Your task to perform on an android device: What is the news today? Image 0: 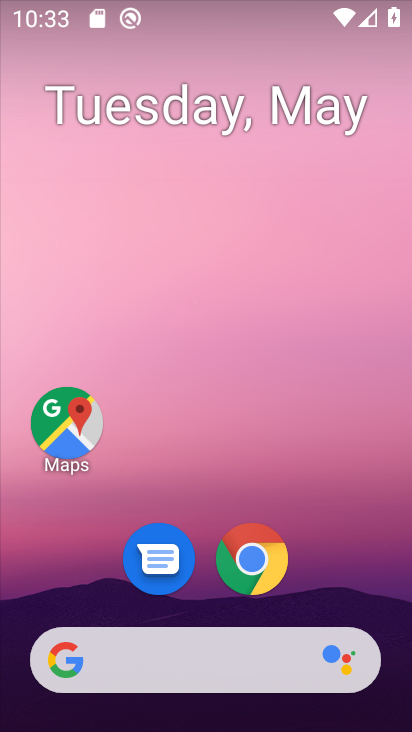
Step 0: drag from (329, 529) to (329, 192)
Your task to perform on an android device: What is the news today? Image 1: 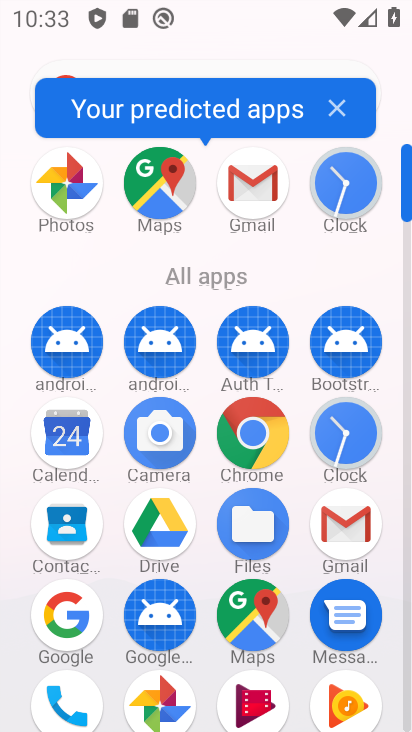
Step 1: click (268, 446)
Your task to perform on an android device: What is the news today? Image 2: 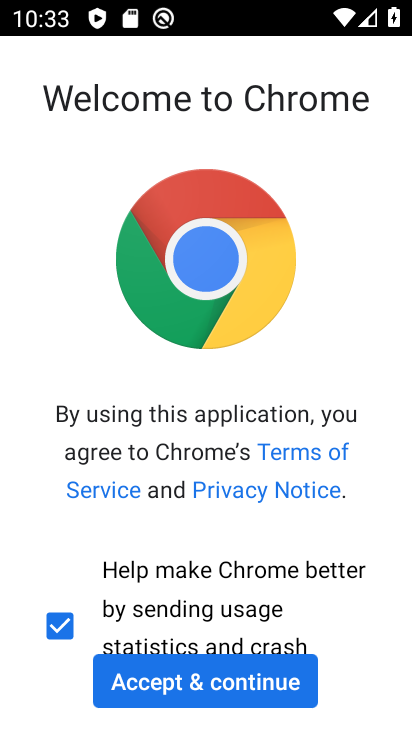
Step 2: click (267, 660)
Your task to perform on an android device: What is the news today? Image 3: 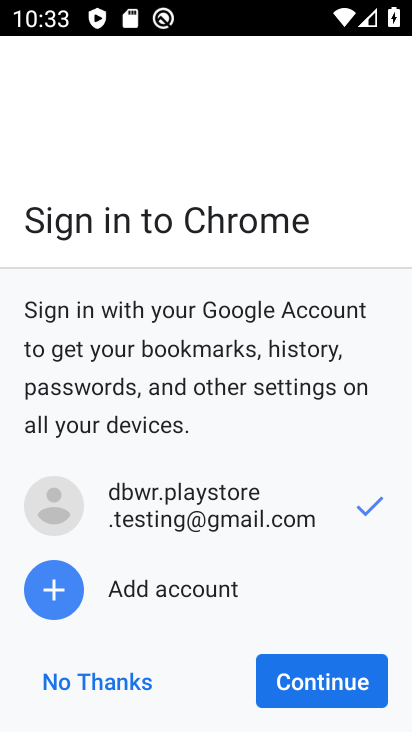
Step 3: click (287, 682)
Your task to perform on an android device: What is the news today? Image 4: 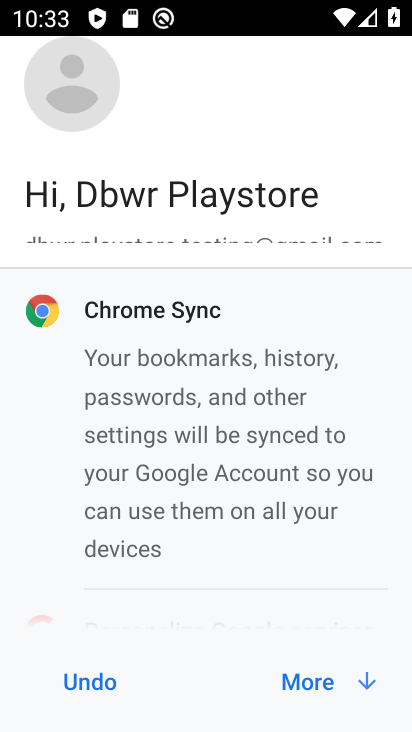
Step 4: click (345, 676)
Your task to perform on an android device: What is the news today? Image 5: 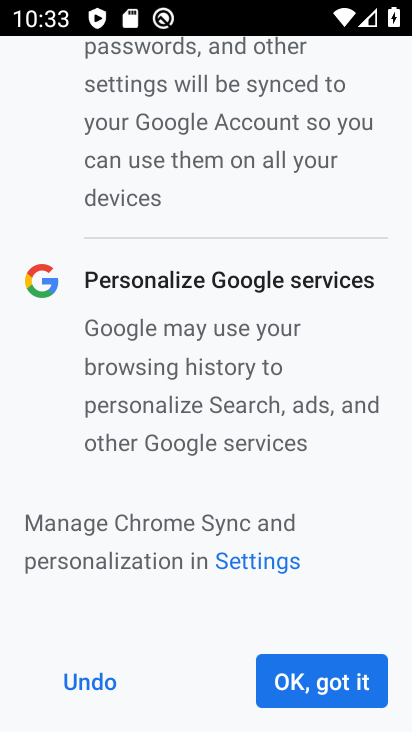
Step 5: click (344, 676)
Your task to perform on an android device: What is the news today? Image 6: 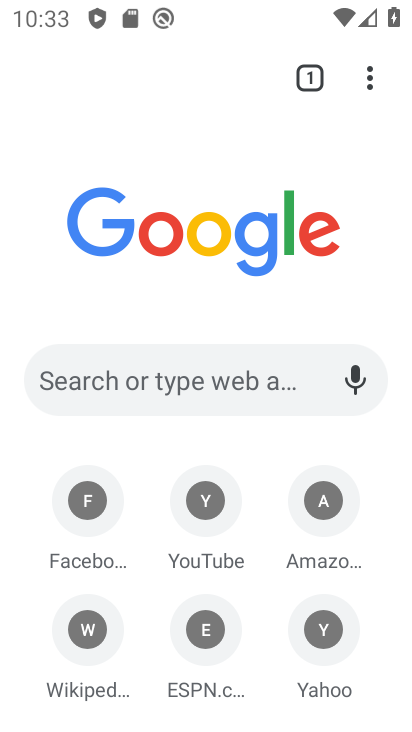
Step 6: click (189, 81)
Your task to perform on an android device: What is the news today? Image 7: 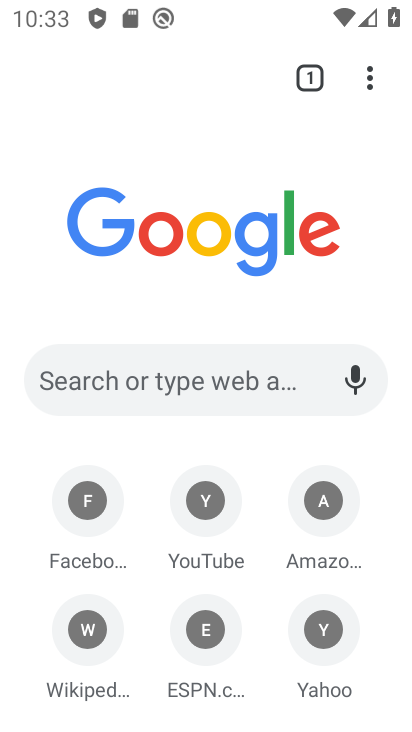
Step 7: click (204, 353)
Your task to perform on an android device: What is the news today? Image 8: 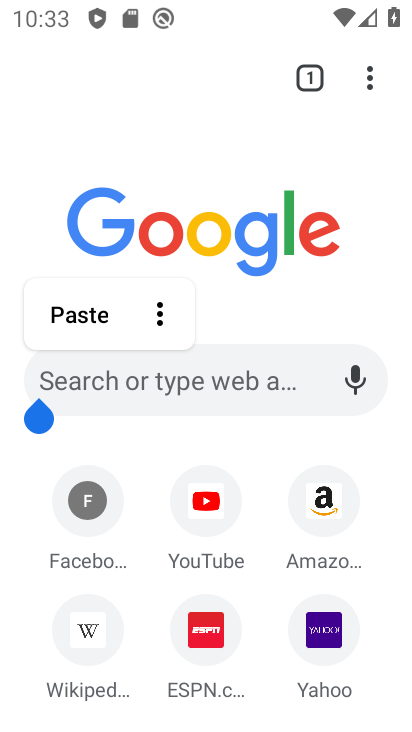
Step 8: click (211, 372)
Your task to perform on an android device: What is the news today? Image 9: 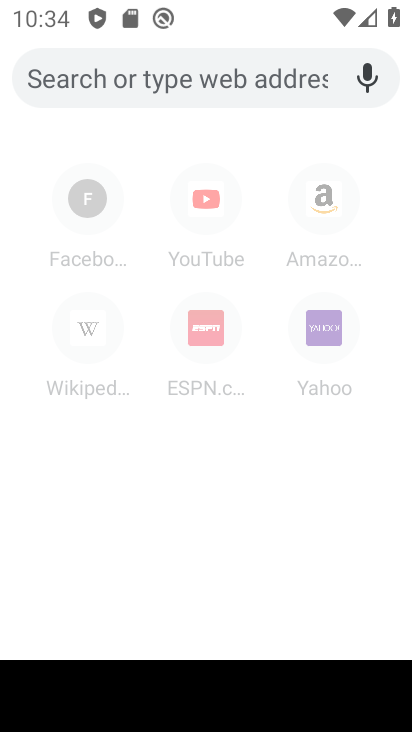
Step 9: type "what is the news today"
Your task to perform on an android device: What is the news today? Image 10: 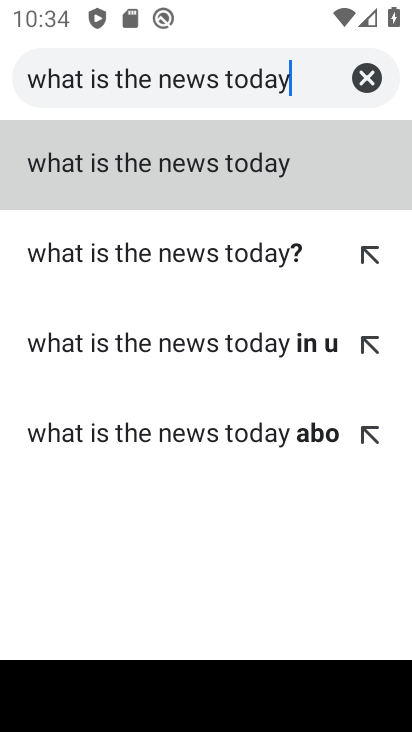
Step 10: click (199, 182)
Your task to perform on an android device: What is the news today? Image 11: 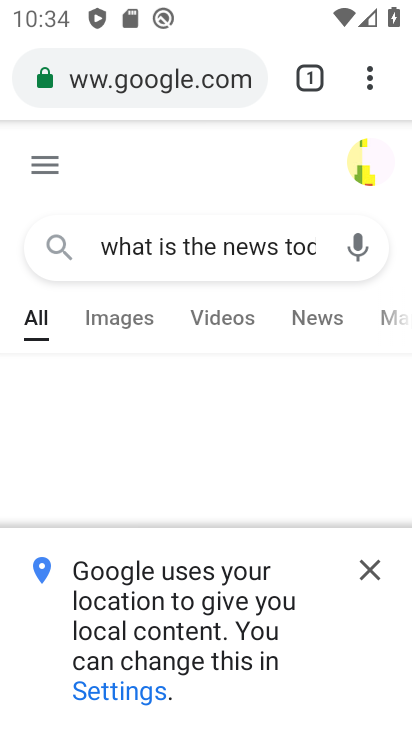
Step 11: click (364, 571)
Your task to perform on an android device: What is the news today? Image 12: 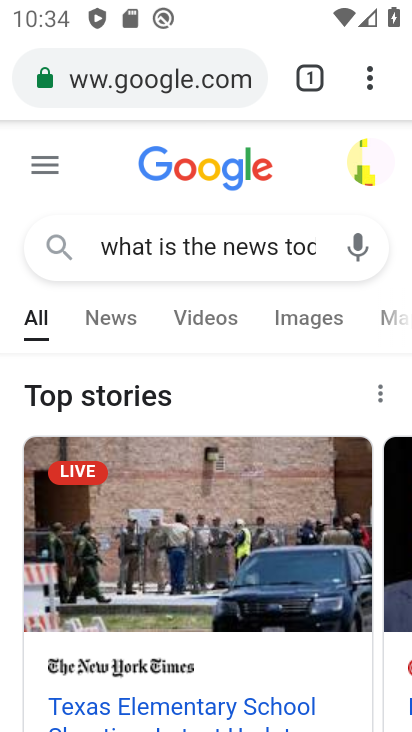
Step 12: task complete